Your task to perform on an android device: Open Google Chrome and click the shortcut for Amazon.com Image 0: 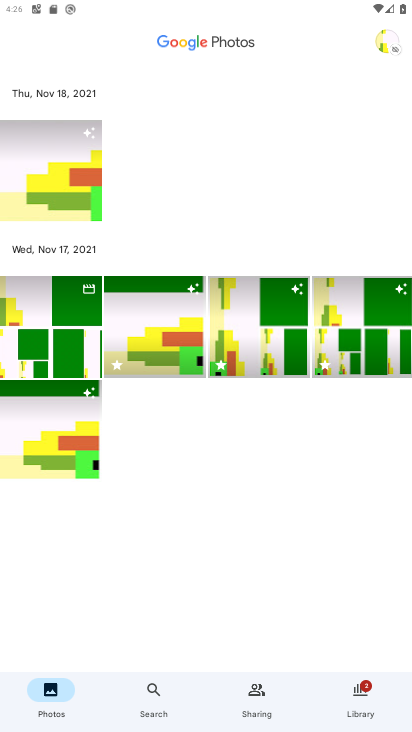
Step 0: press home button
Your task to perform on an android device: Open Google Chrome and click the shortcut for Amazon.com Image 1: 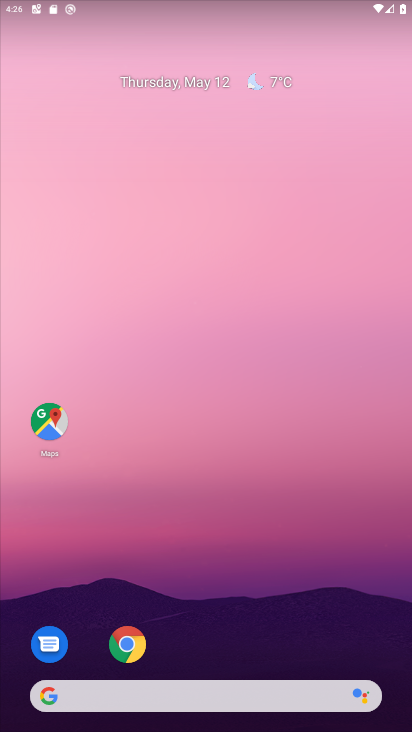
Step 1: click (126, 639)
Your task to perform on an android device: Open Google Chrome and click the shortcut for Amazon.com Image 2: 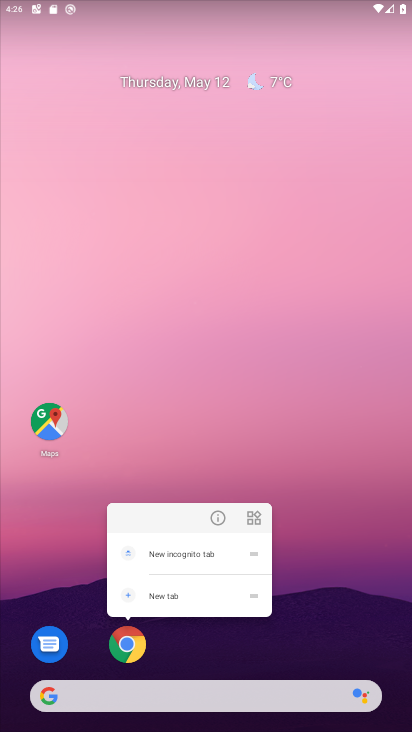
Step 2: click (126, 636)
Your task to perform on an android device: Open Google Chrome and click the shortcut for Amazon.com Image 3: 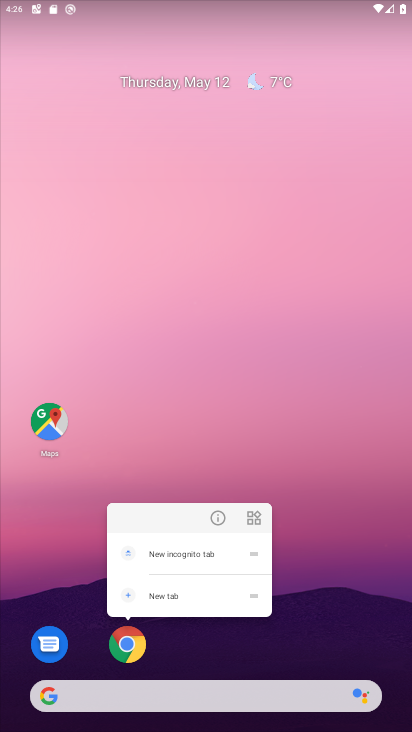
Step 3: click (126, 636)
Your task to perform on an android device: Open Google Chrome and click the shortcut for Amazon.com Image 4: 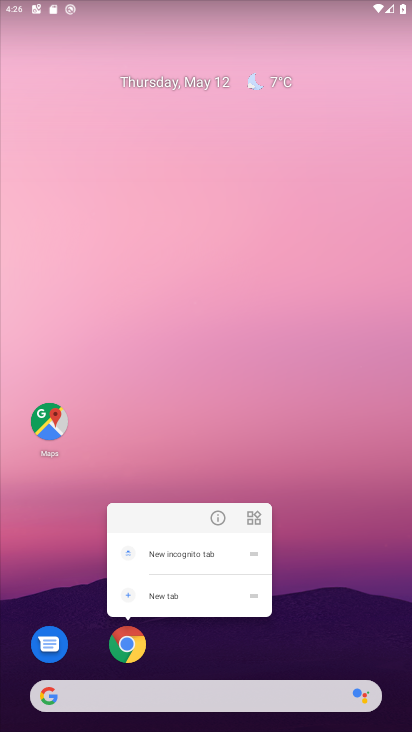
Step 4: click (123, 639)
Your task to perform on an android device: Open Google Chrome and click the shortcut for Amazon.com Image 5: 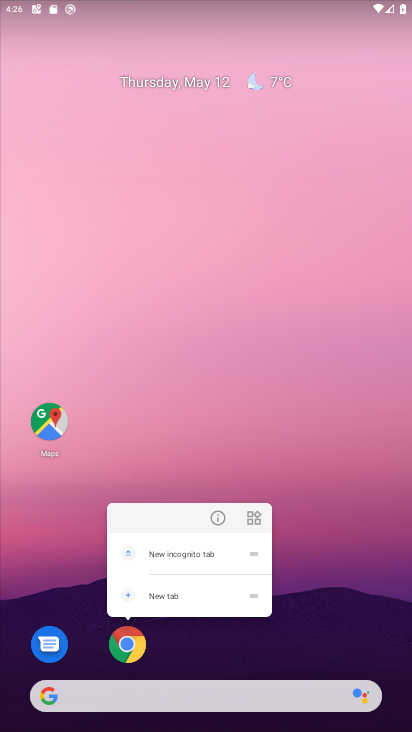
Step 5: click (320, 635)
Your task to perform on an android device: Open Google Chrome and click the shortcut for Amazon.com Image 6: 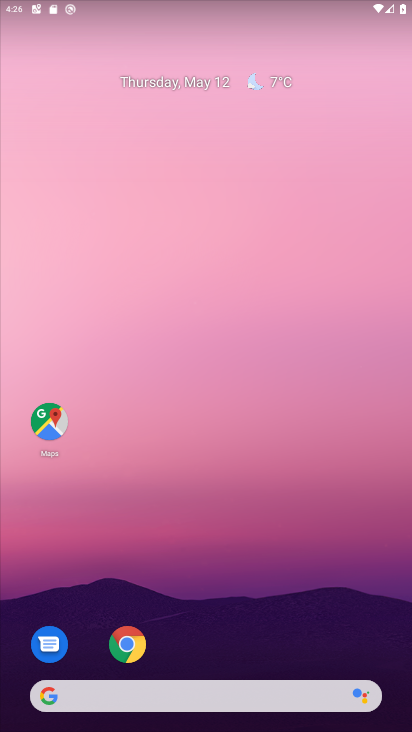
Step 6: drag from (302, 658) to (310, 68)
Your task to perform on an android device: Open Google Chrome and click the shortcut for Amazon.com Image 7: 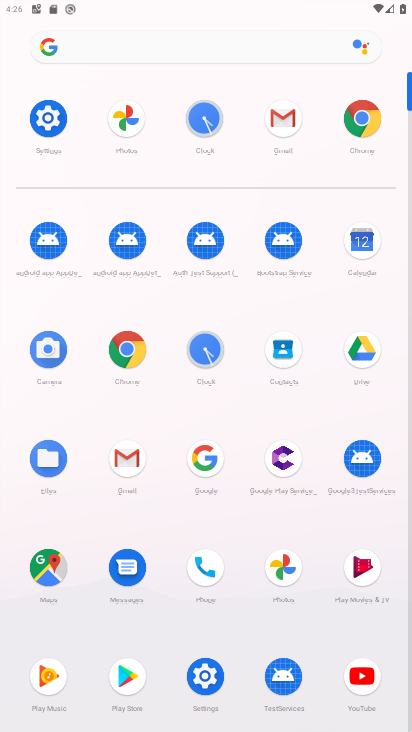
Step 7: click (131, 347)
Your task to perform on an android device: Open Google Chrome and click the shortcut for Amazon.com Image 8: 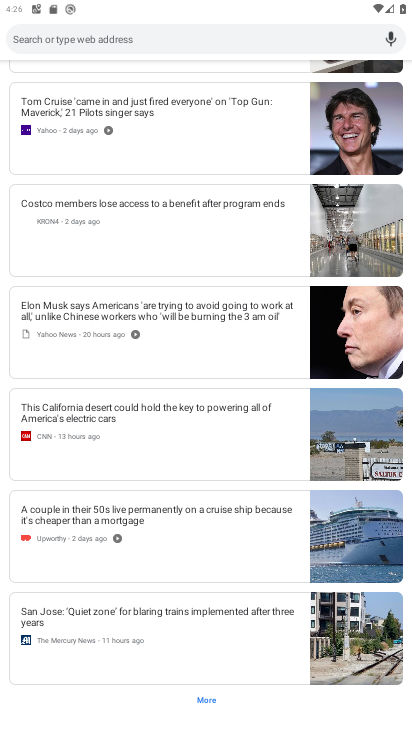
Step 8: drag from (232, 120) to (247, 634)
Your task to perform on an android device: Open Google Chrome and click the shortcut for Amazon.com Image 9: 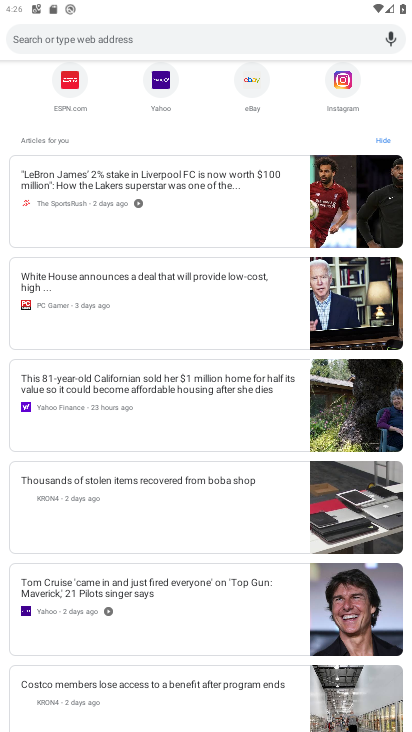
Step 9: drag from (214, 129) to (210, 611)
Your task to perform on an android device: Open Google Chrome and click the shortcut for Amazon.com Image 10: 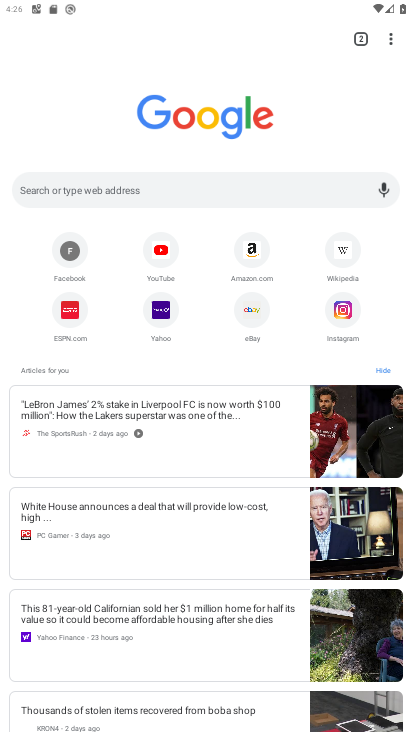
Step 10: click (249, 241)
Your task to perform on an android device: Open Google Chrome and click the shortcut for Amazon.com Image 11: 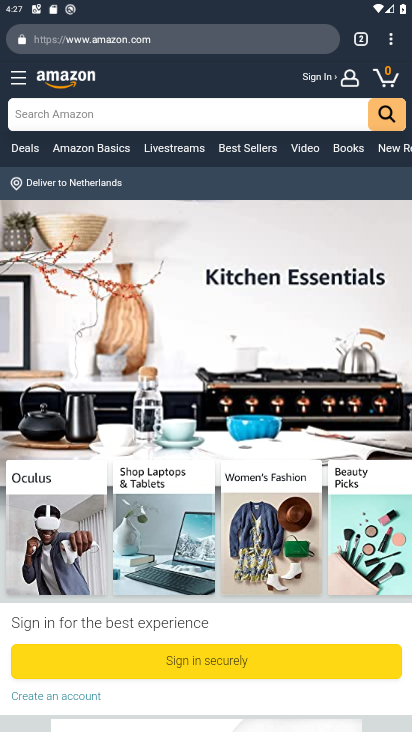
Step 11: task complete